Your task to perform on an android device: turn off wifi Image 0: 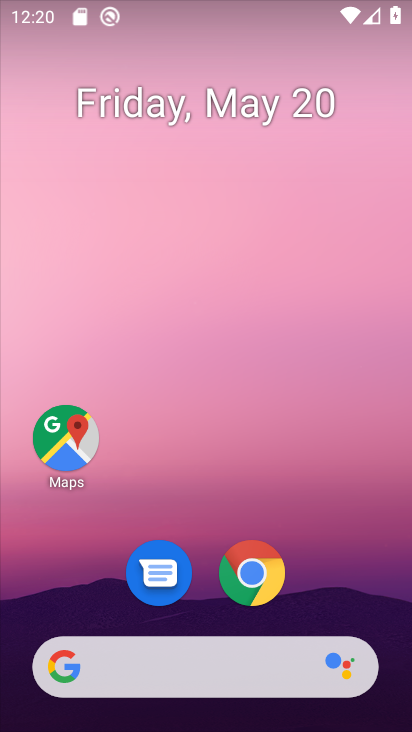
Step 0: drag from (200, 577) to (225, 133)
Your task to perform on an android device: turn off wifi Image 1: 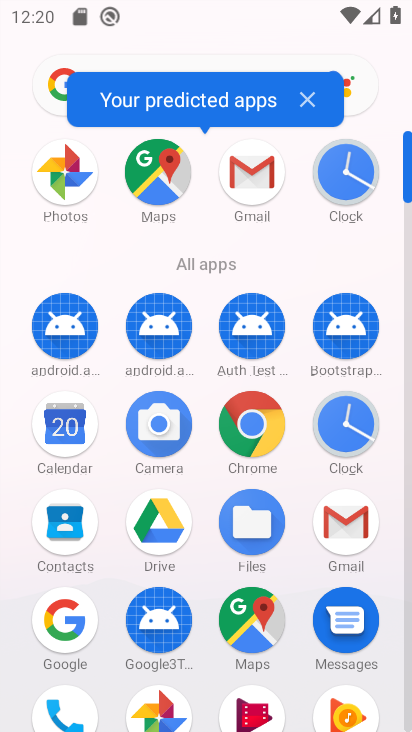
Step 1: click (243, 89)
Your task to perform on an android device: turn off wifi Image 2: 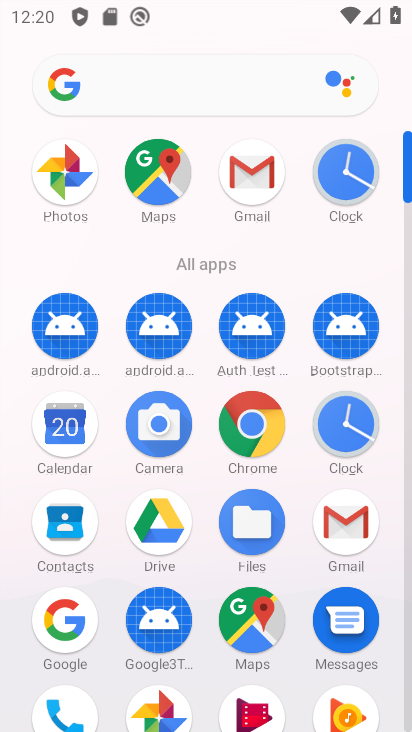
Step 2: drag from (194, 593) to (218, 158)
Your task to perform on an android device: turn off wifi Image 3: 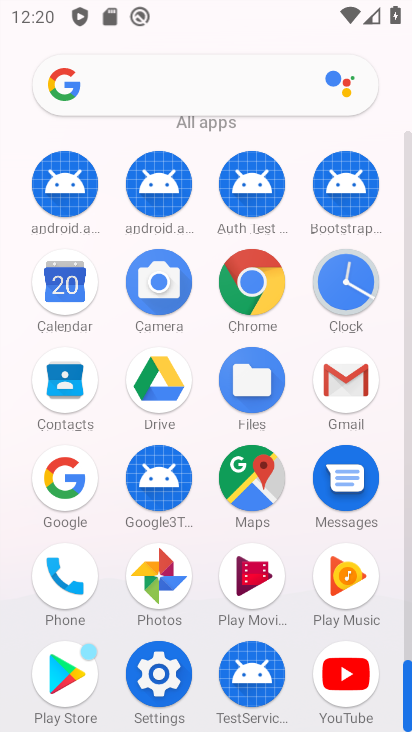
Step 3: click (154, 671)
Your task to perform on an android device: turn off wifi Image 4: 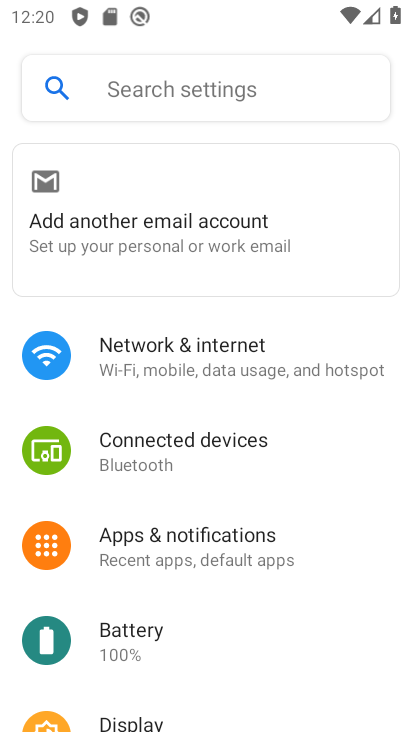
Step 4: click (197, 370)
Your task to perform on an android device: turn off wifi Image 5: 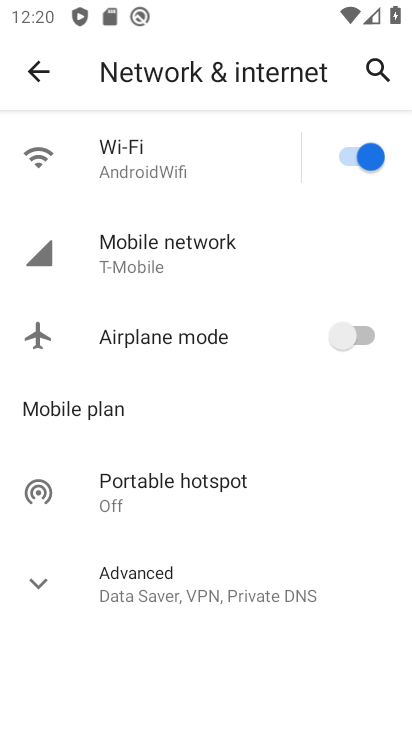
Step 5: click (337, 159)
Your task to perform on an android device: turn off wifi Image 6: 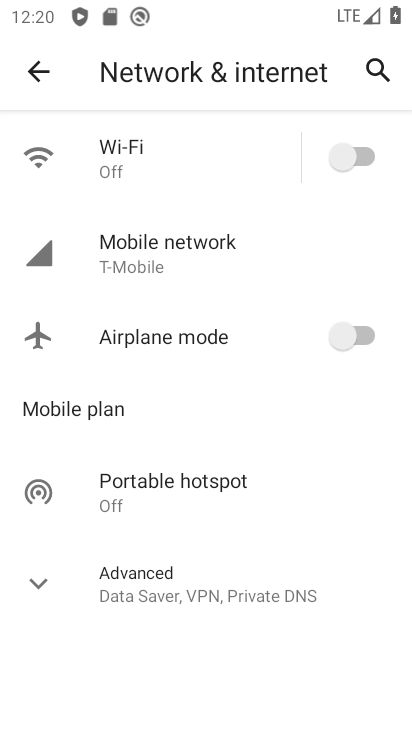
Step 6: task complete